Your task to perform on an android device: allow notifications from all sites in the chrome app Image 0: 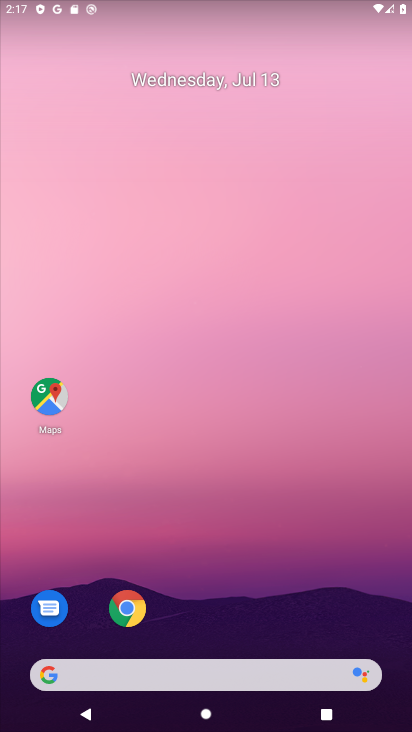
Step 0: click (128, 611)
Your task to perform on an android device: allow notifications from all sites in the chrome app Image 1: 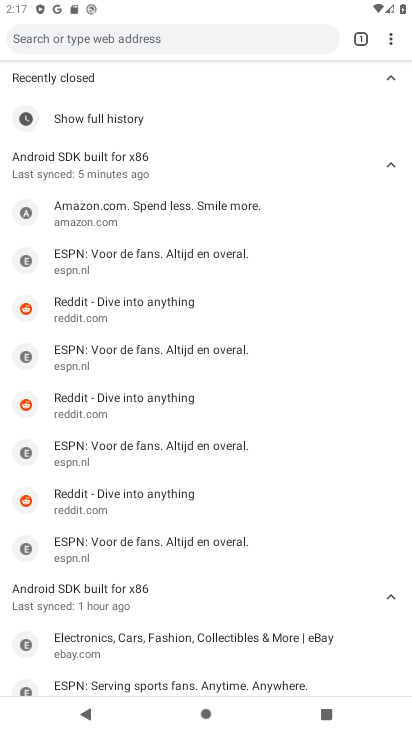
Step 1: click (402, 28)
Your task to perform on an android device: allow notifications from all sites in the chrome app Image 2: 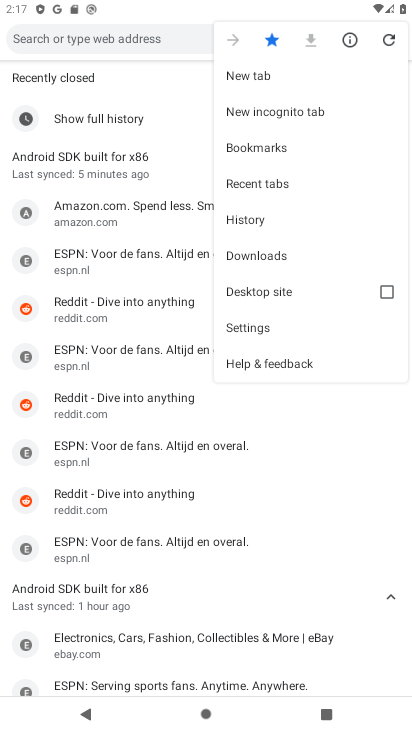
Step 2: click (238, 336)
Your task to perform on an android device: allow notifications from all sites in the chrome app Image 3: 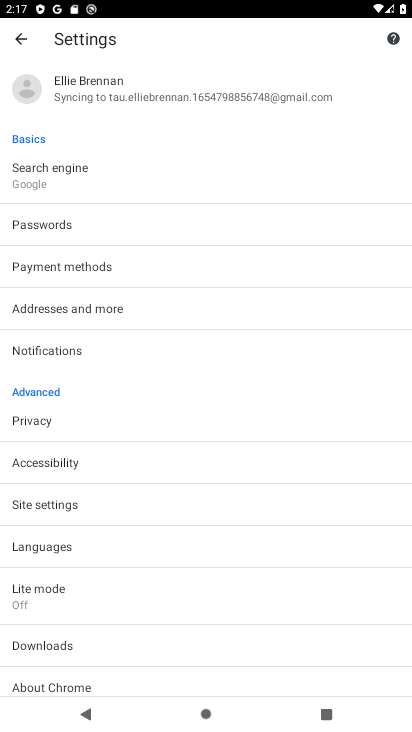
Step 3: click (85, 336)
Your task to perform on an android device: allow notifications from all sites in the chrome app Image 4: 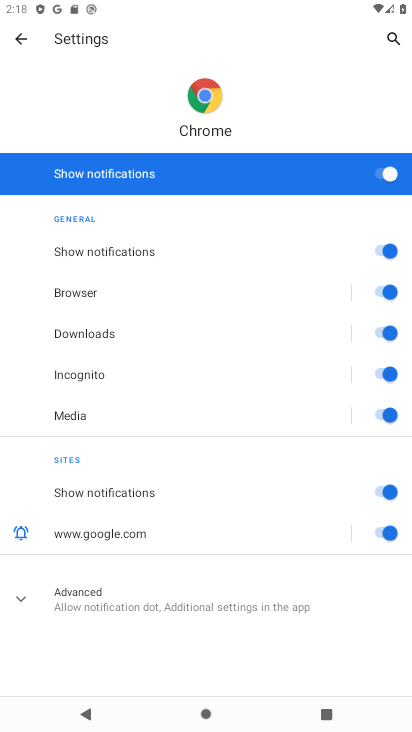
Step 4: task complete